Your task to perform on an android device: When is my next appointment? Image 0: 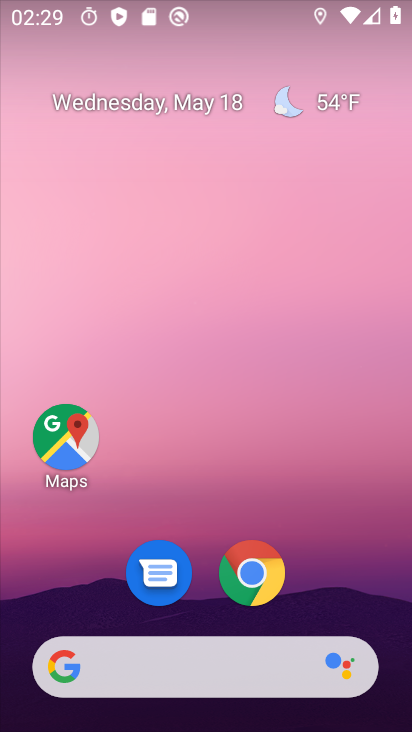
Step 0: drag from (205, 604) to (224, 224)
Your task to perform on an android device: When is my next appointment? Image 1: 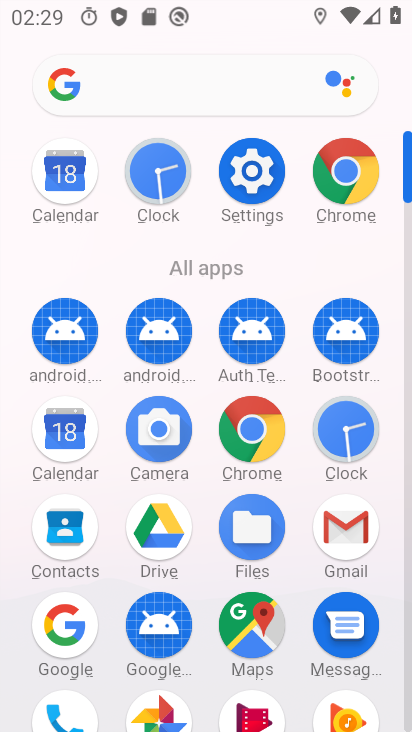
Step 1: click (58, 189)
Your task to perform on an android device: When is my next appointment? Image 2: 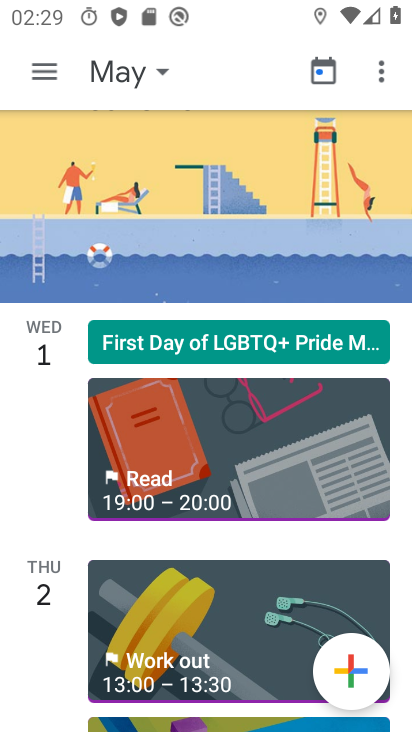
Step 2: task complete